Your task to perform on an android device: snooze an email in the gmail app Image 0: 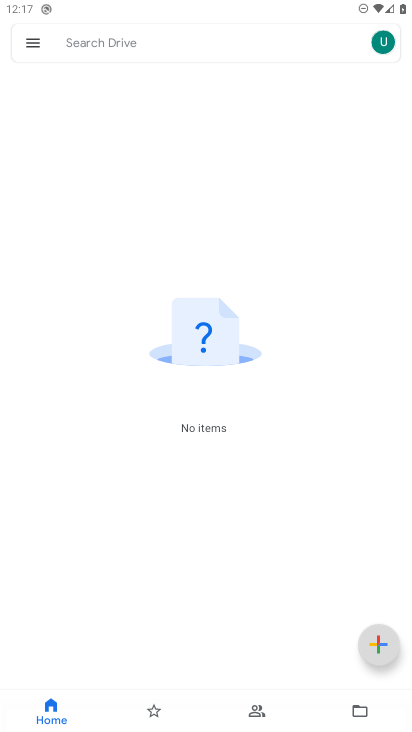
Step 0: press home button
Your task to perform on an android device: snooze an email in the gmail app Image 1: 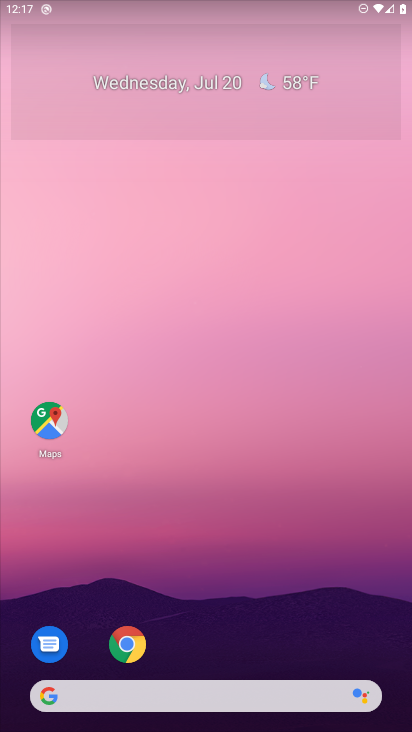
Step 1: drag from (101, 520) to (162, 226)
Your task to perform on an android device: snooze an email in the gmail app Image 2: 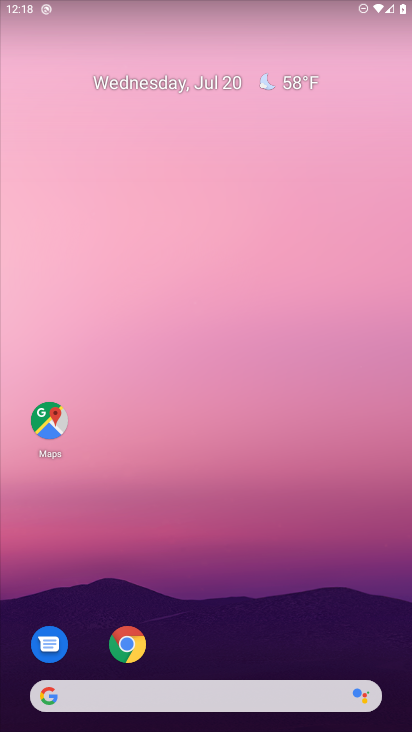
Step 2: drag from (35, 708) to (165, 305)
Your task to perform on an android device: snooze an email in the gmail app Image 3: 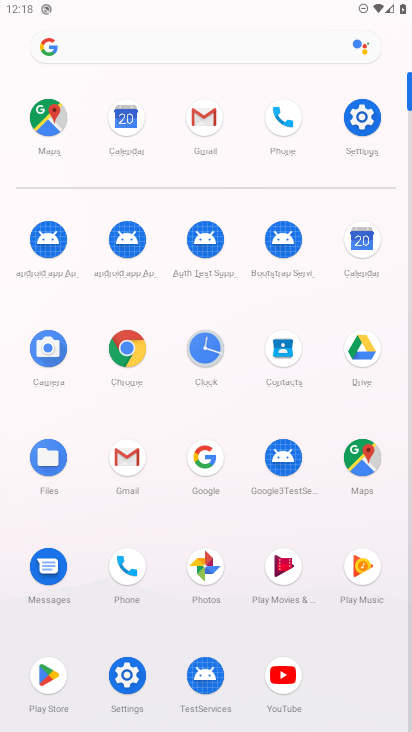
Step 3: click (132, 469)
Your task to perform on an android device: snooze an email in the gmail app Image 4: 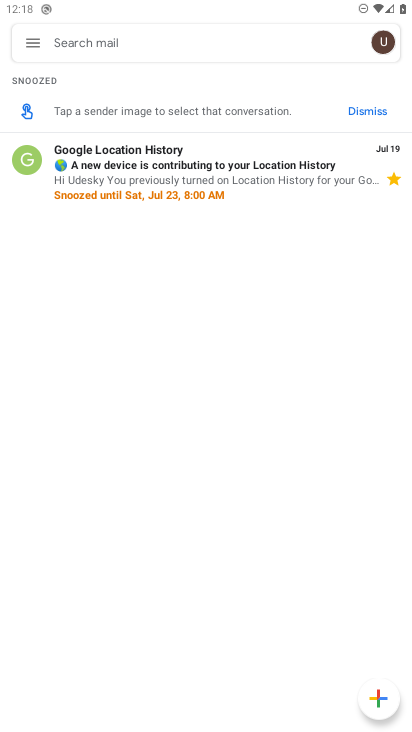
Step 4: click (30, 33)
Your task to perform on an android device: snooze an email in the gmail app Image 5: 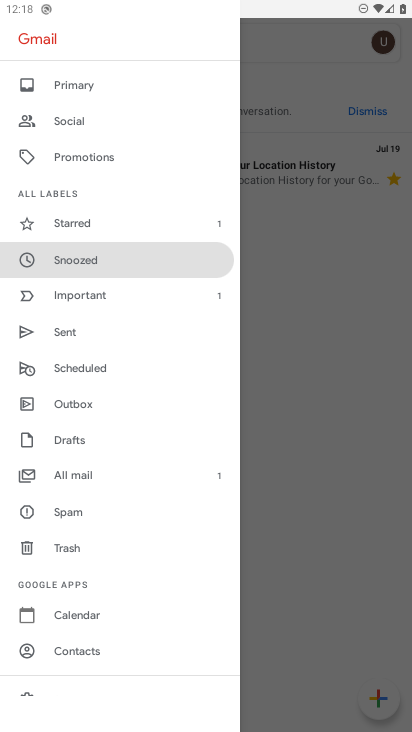
Step 5: click (69, 268)
Your task to perform on an android device: snooze an email in the gmail app Image 6: 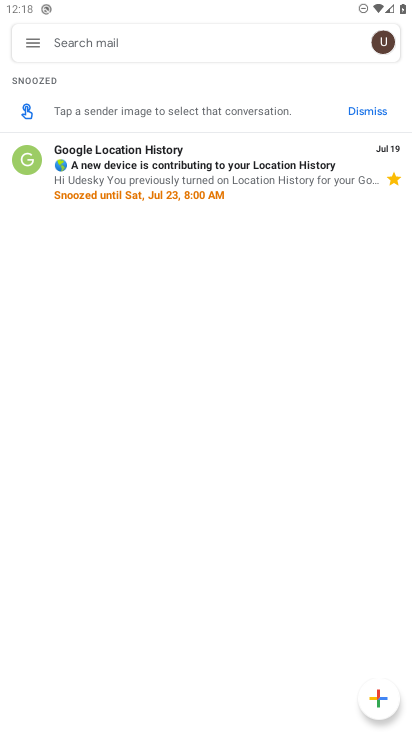
Step 6: task complete